Your task to perform on an android device: What's on my calendar today? Image 0: 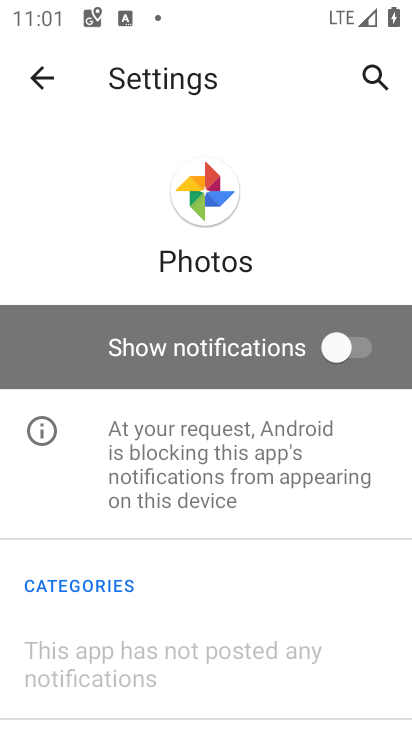
Step 0: press home button
Your task to perform on an android device: What's on my calendar today? Image 1: 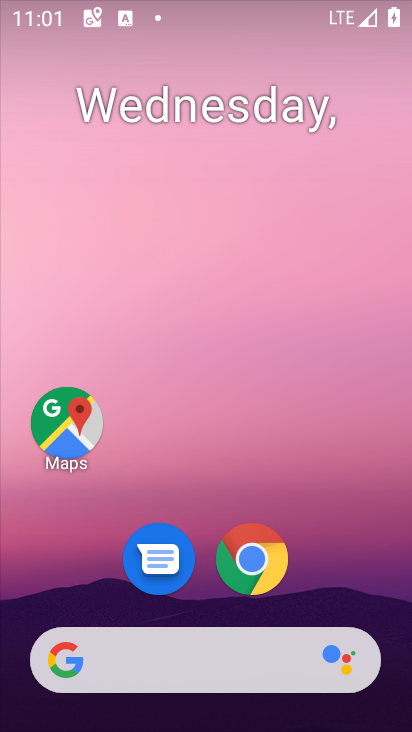
Step 1: drag from (252, 637) to (243, 204)
Your task to perform on an android device: What's on my calendar today? Image 2: 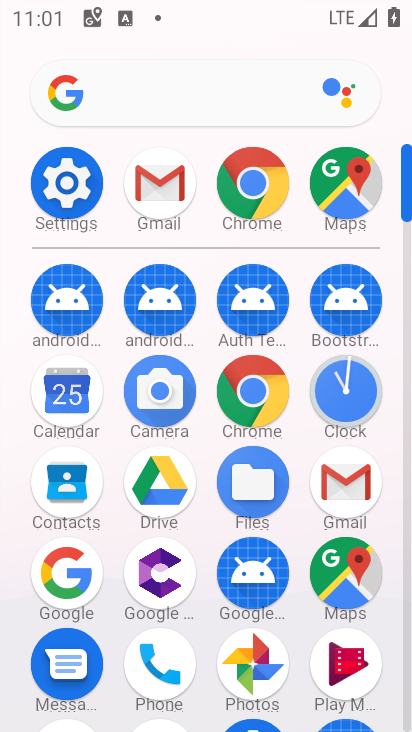
Step 2: click (79, 399)
Your task to perform on an android device: What's on my calendar today? Image 3: 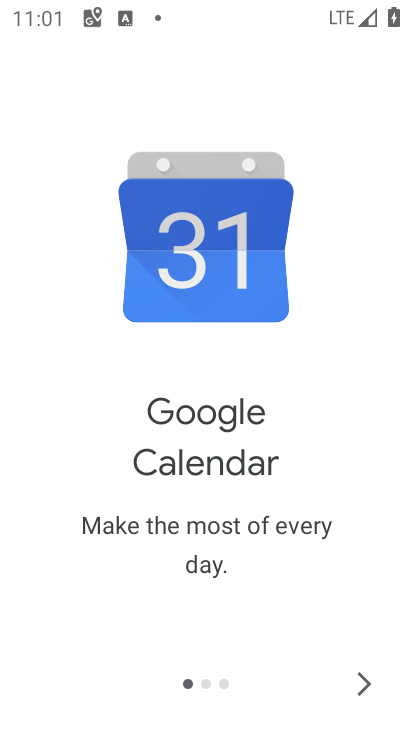
Step 3: click (371, 678)
Your task to perform on an android device: What's on my calendar today? Image 4: 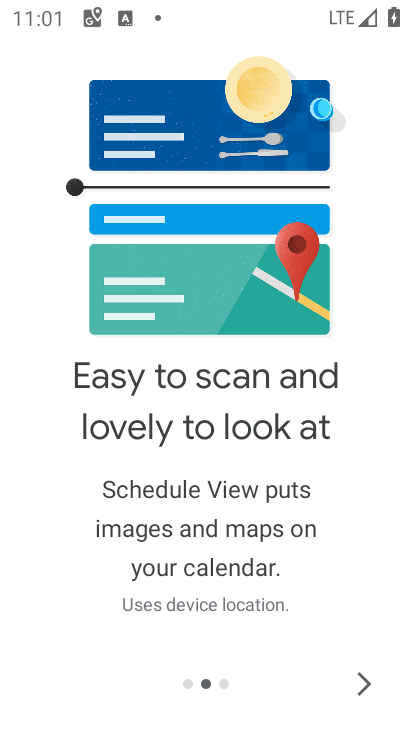
Step 4: click (362, 686)
Your task to perform on an android device: What's on my calendar today? Image 5: 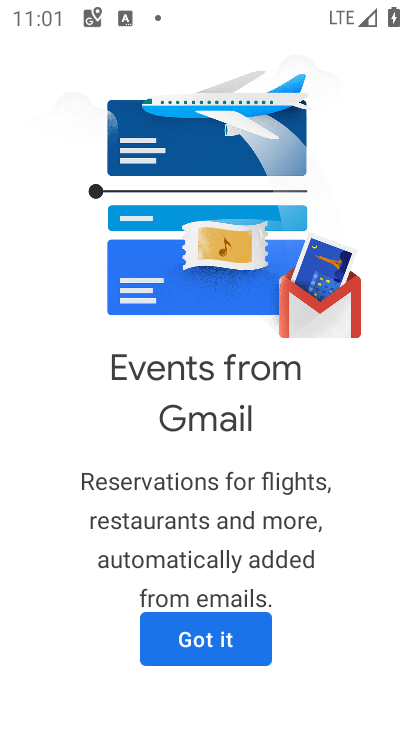
Step 5: click (232, 653)
Your task to perform on an android device: What's on my calendar today? Image 6: 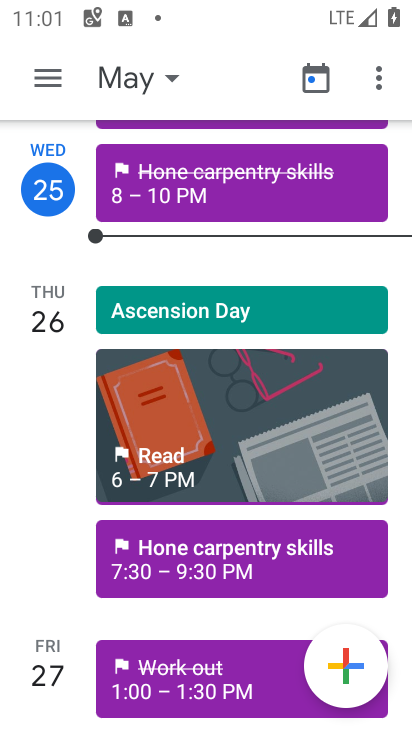
Step 6: click (95, 84)
Your task to perform on an android device: What's on my calendar today? Image 7: 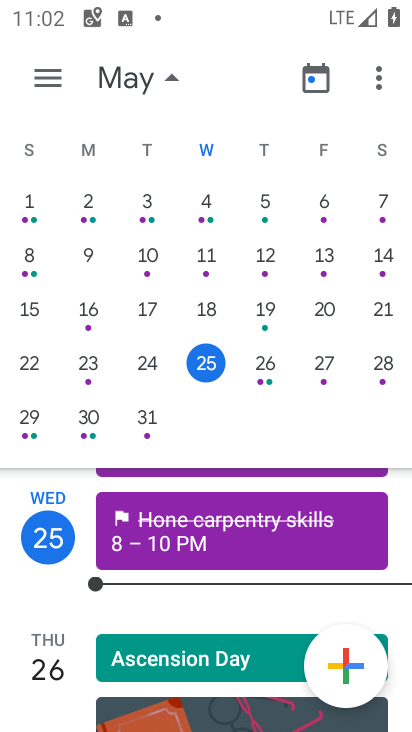
Step 7: click (260, 373)
Your task to perform on an android device: What's on my calendar today? Image 8: 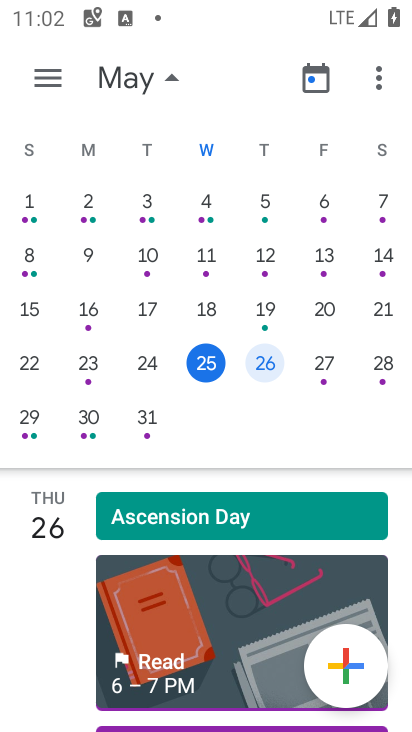
Step 8: task complete